Your task to perform on an android device: Check the settings for the Google Play Music app Image 0: 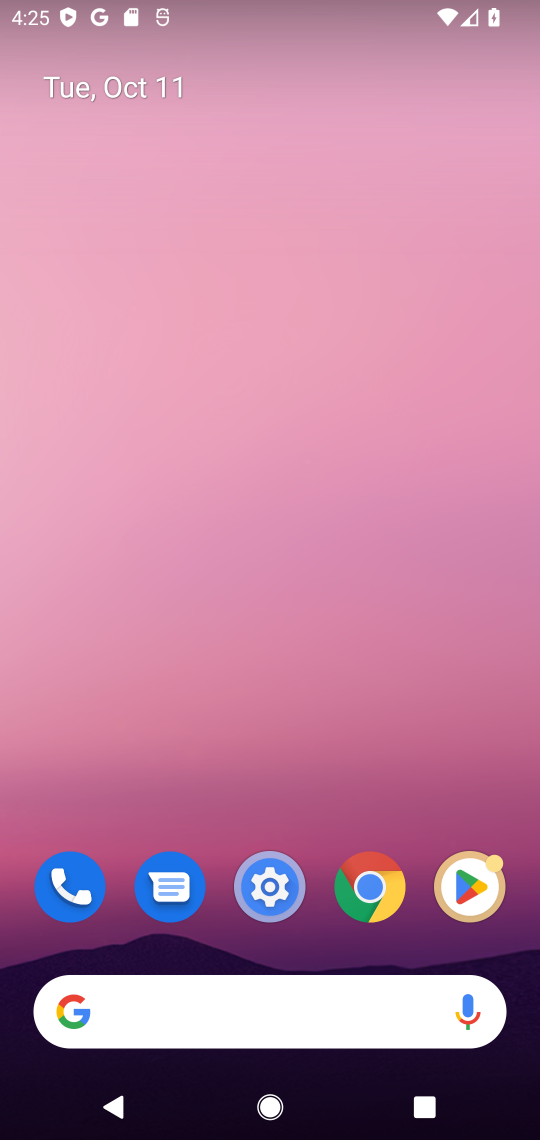
Step 0: drag from (347, 1089) to (347, 391)
Your task to perform on an android device: Check the settings for the Google Play Music app Image 1: 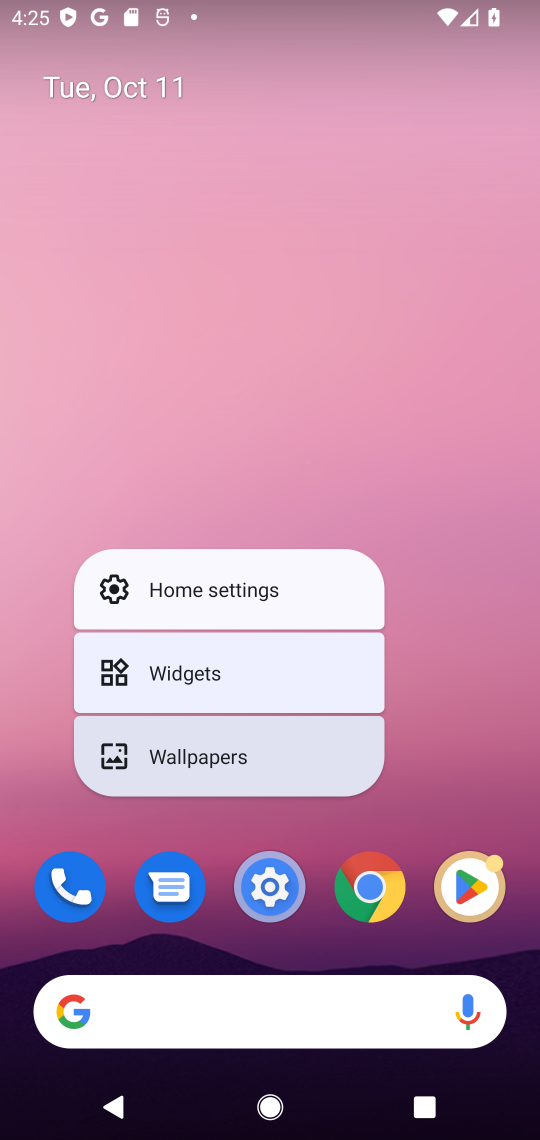
Step 1: click (397, 456)
Your task to perform on an android device: Check the settings for the Google Play Music app Image 2: 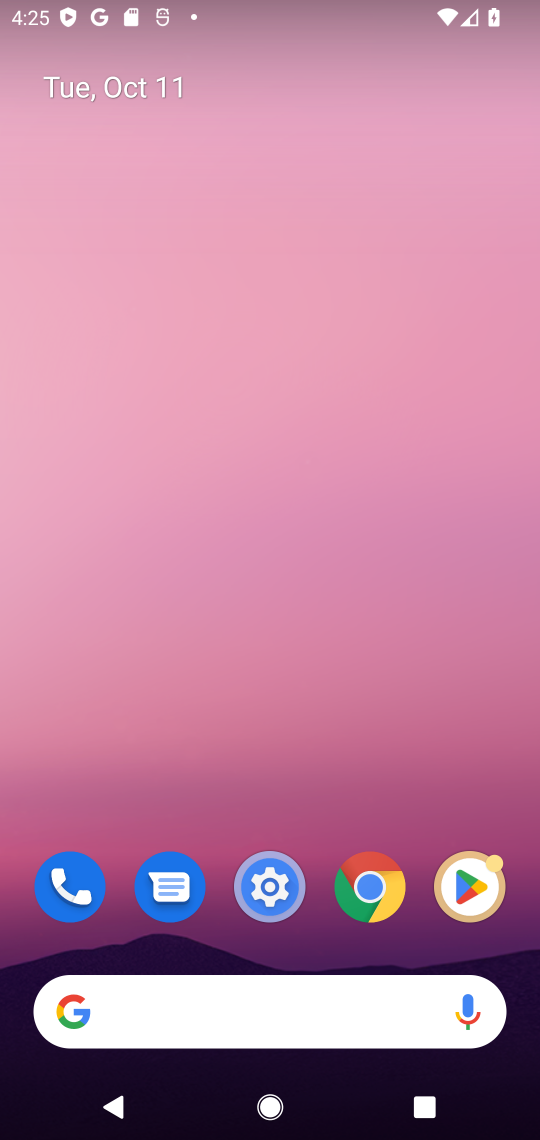
Step 2: drag from (360, 1083) to (315, 100)
Your task to perform on an android device: Check the settings for the Google Play Music app Image 3: 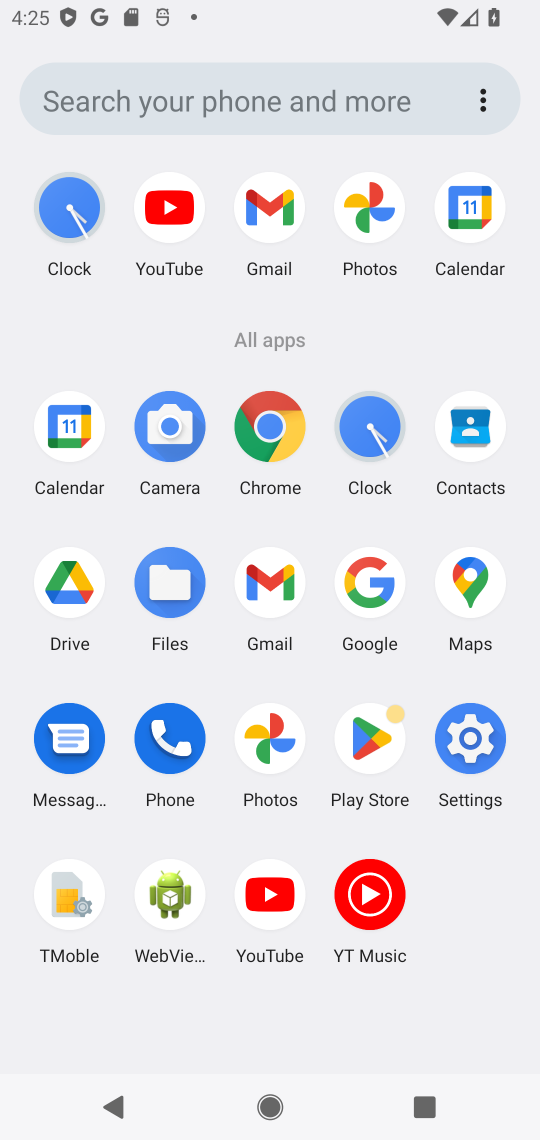
Step 3: click (364, 746)
Your task to perform on an android device: Check the settings for the Google Play Music app Image 4: 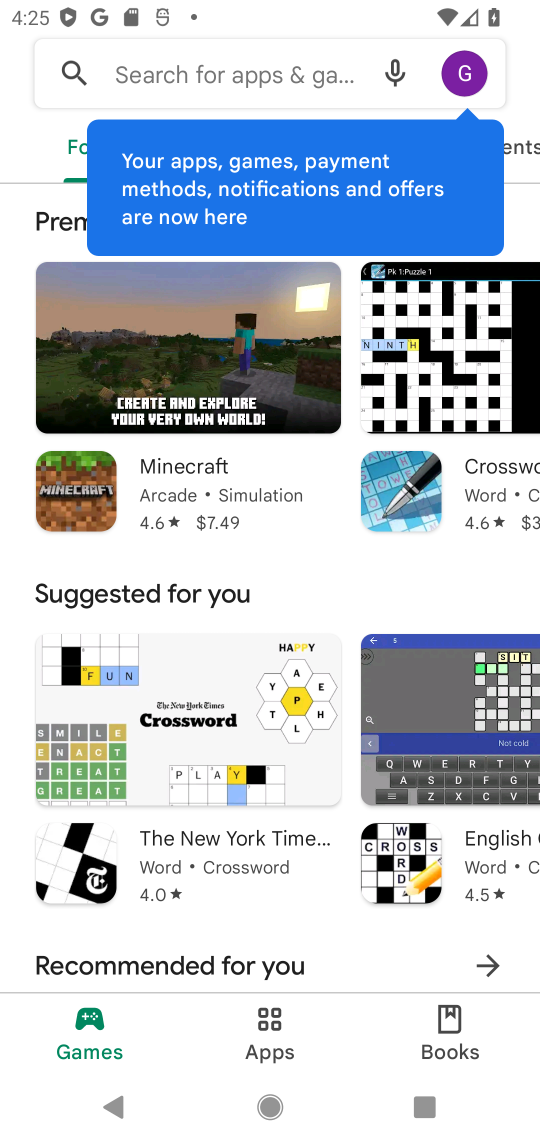
Step 4: click (174, 76)
Your task to perform on an android device: Check the settings for the Google Play Music app Image 5: 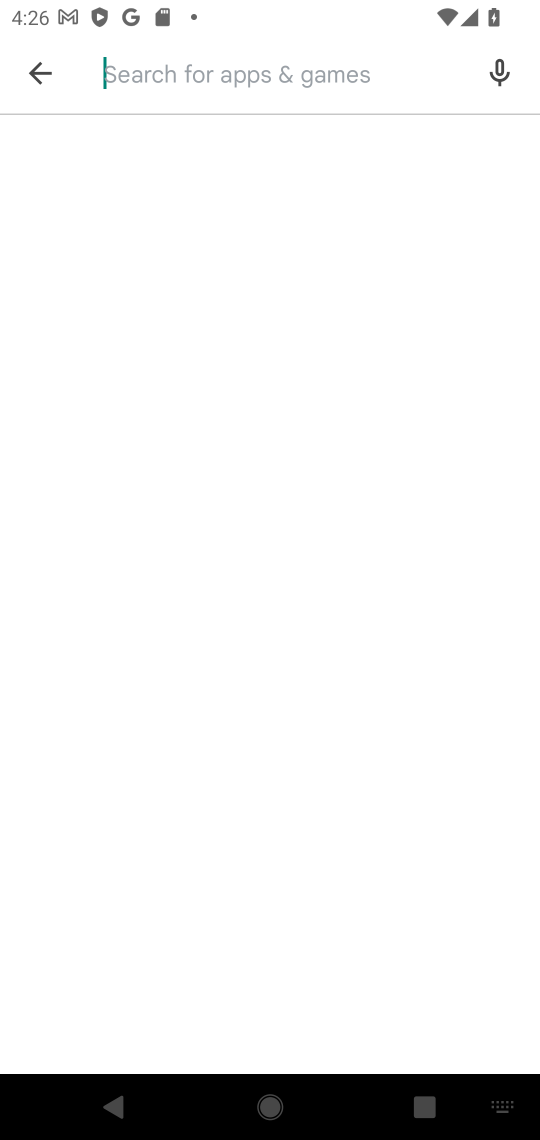
Step 5: type "google play music app"
Your task to perform on an android device: Check the settings for the Google Play Music app Image 6: 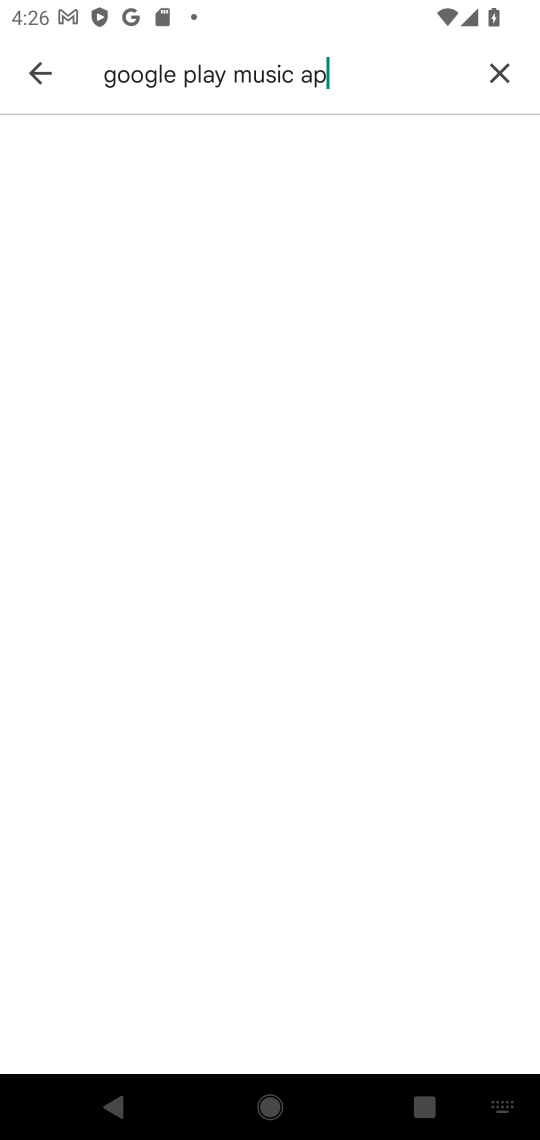
Step 6: type ""
Your task to perform on an android device: Check the settings for the Google Play Music app Image 7: 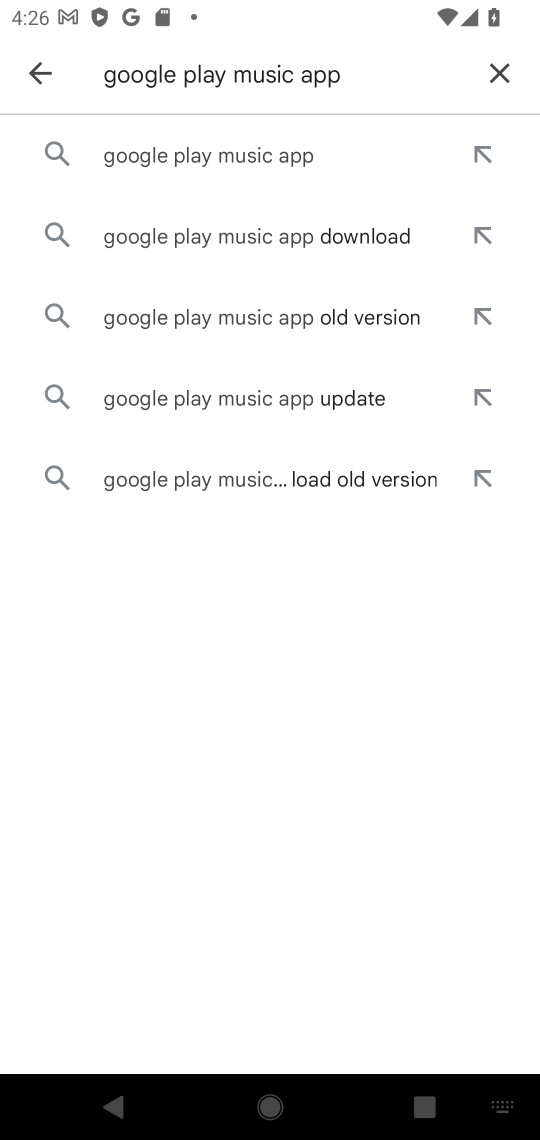
Step 7: click (283, 163)
Your task to perform on an android device: Check the settings for the Google Play Music app Image 8: 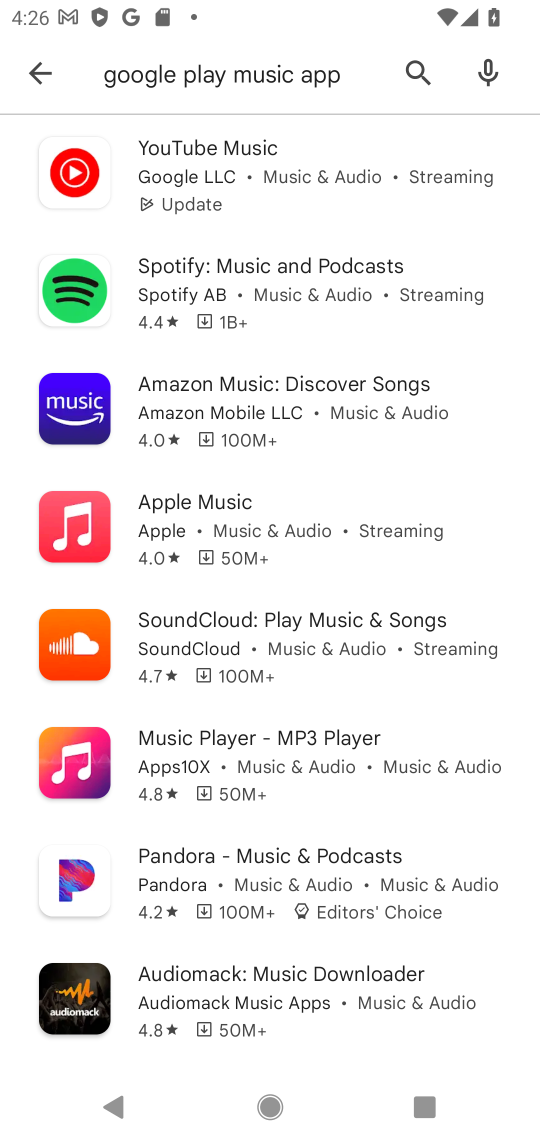
Step 8: click (27, 80)
Your task to perform on an android device: Check the settings for the Google Play Music app Image 9: 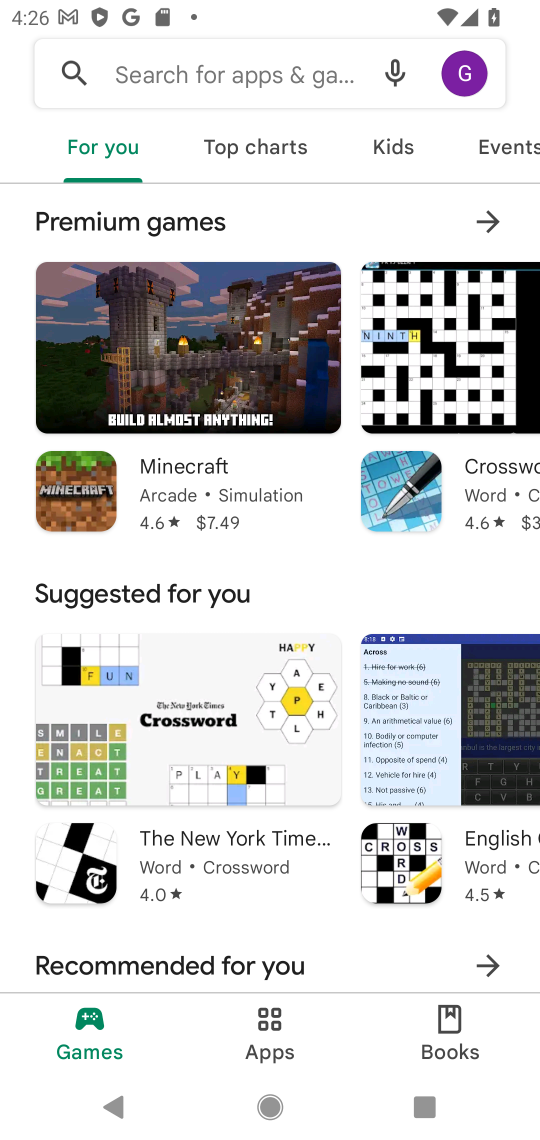
Step 9: task complete